Your task to perform on an android device: turn off smart reply in the gmail app Image 0: 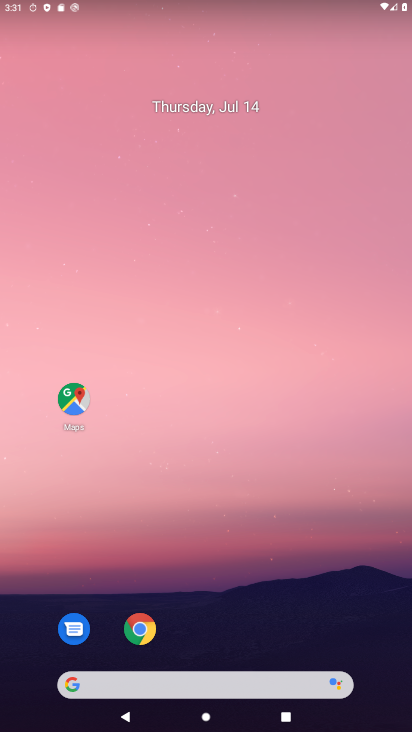
Step 0: click (304, 133)
Your task to perform on an android device: turn off smart reply in the gmail app Image 1: 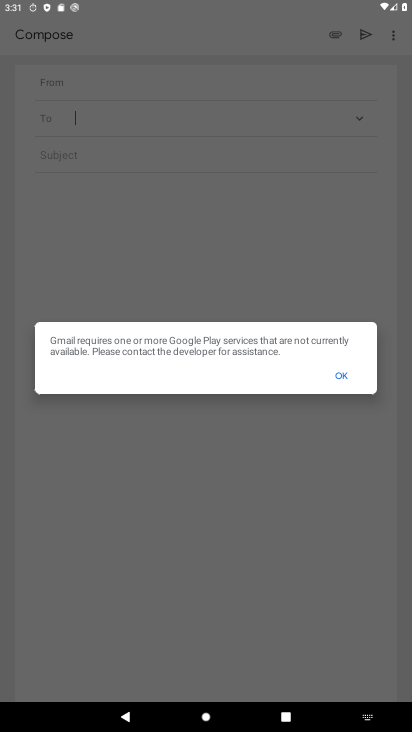
Step 1: press home button
Your task to perform on an android device: turn off smart reply in the gmail app Image 2: 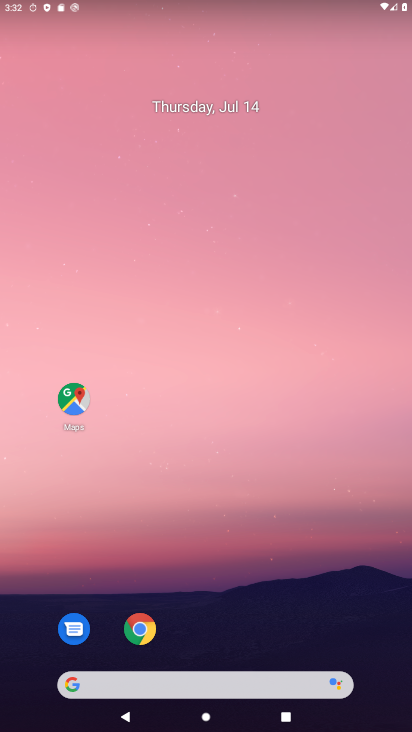
Step 2: drag from (284, 578) to (335, 107)
Your task to perform on an android device: turn off smart reply in the gmail app Image 3: 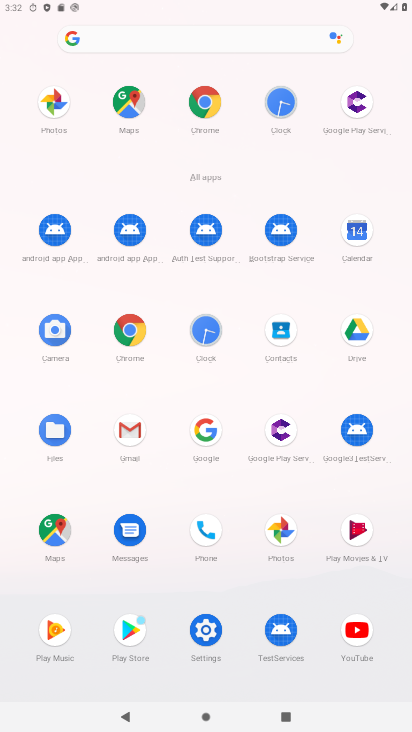
Step 3: click (124, 426)
Your task to perform on an android device: turn off smart reply in the gmail app Image 4: 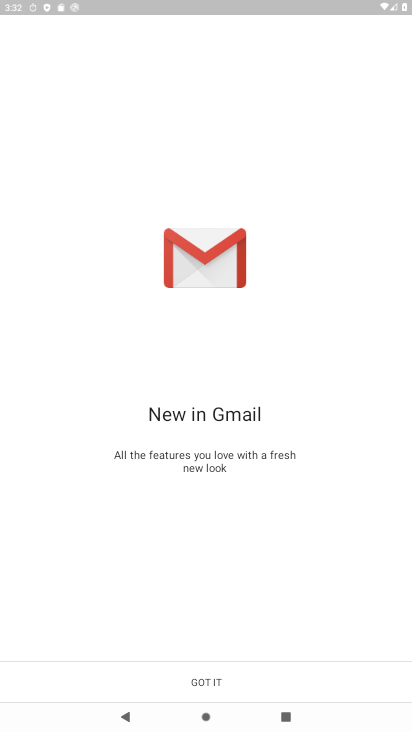
Step 4: click (231, 682)
Your task to perform on an android device: turn off smart reply in the gmail app Image 5: 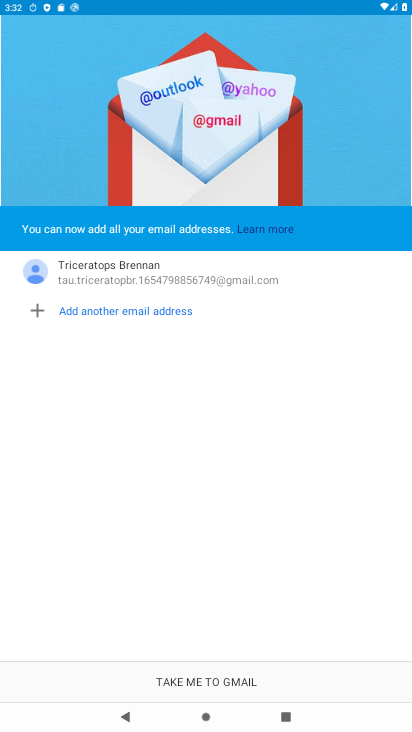
Step 5: click (222, 669)
Your task to perform on an android device: turn off smart reply in the gmail app Image 6: 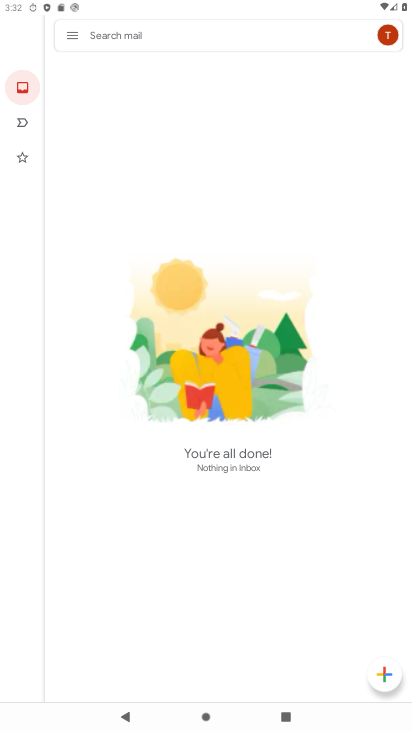
Step 6: click (252, 224)
Your task to perform on an android device: turn off smart reply in the gmail app Image 7: 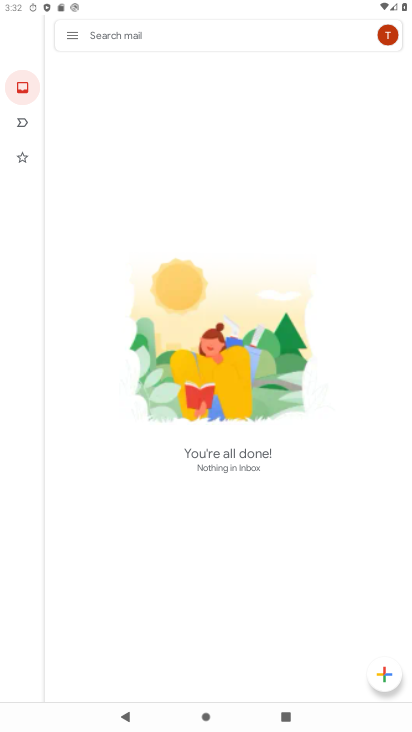
Step 7: click (68, 23)
Your task to perform on an android device: turn off smart reply in the gmail app Image 8: 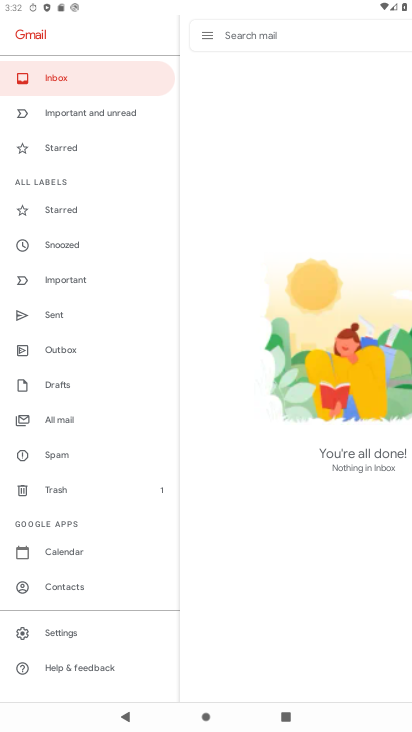
Step 8: click (59, 627)
Your task to perform on an android device: turn off smart reply in the gmail app Image 9: 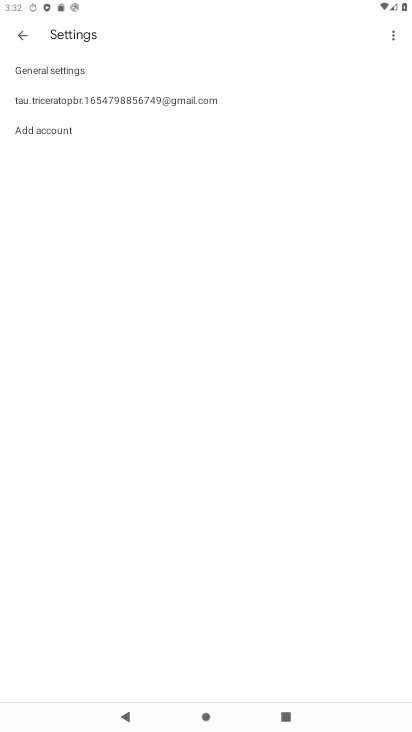
Step 9: click (175, 91)
Your task to perform on an android device: turn off smart reply in the gmail app Image 10: 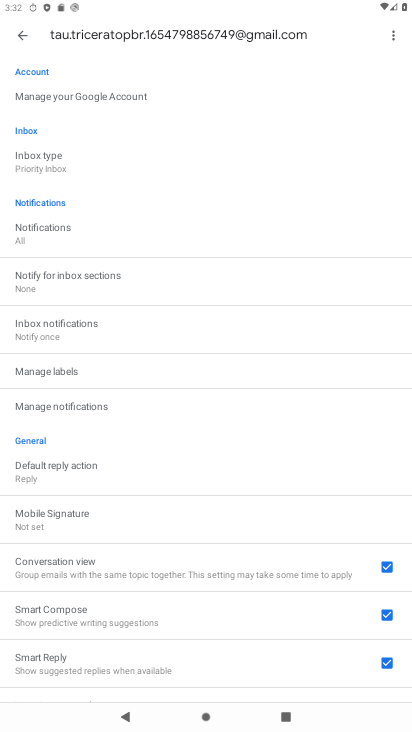
Step 10: click (356, 663)
Your task to perform on an android device: turn off smart reply in the gmail app Image 11: 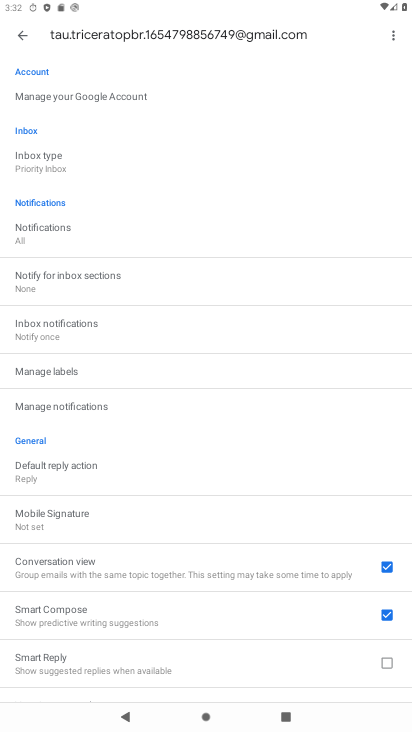
Step 11: task complete